Your task to perform on an android device: Open the calendar and show me this week's events Image 0: 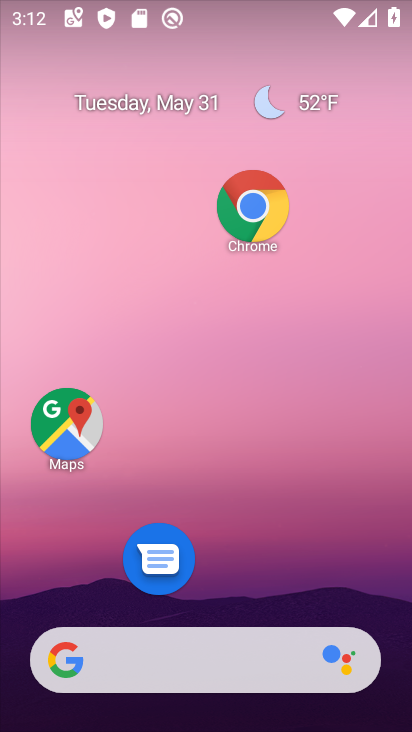
Step 0: drag from (237, 555) to (213, 100)
Your task to perform on an android device: Open the calendar and show me this week's events Image 1: 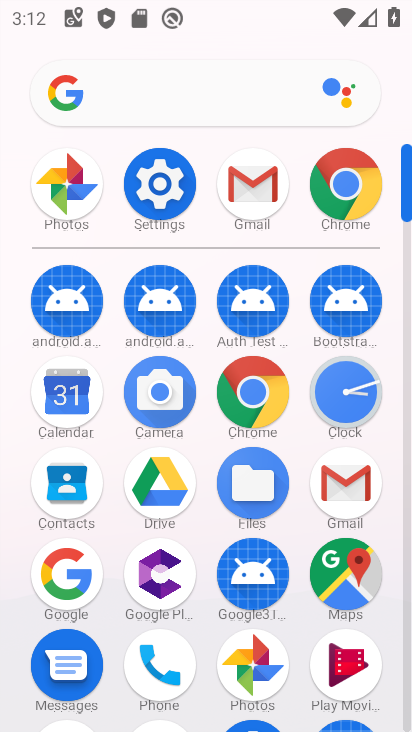
Step 1: click (72, 372)
Your task to perform on an android device: Open the calendar and show me this week's events Image 2: 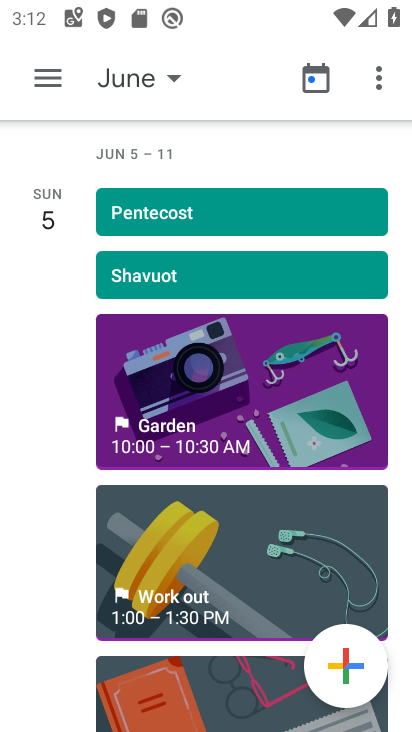
Step 2: click (179, 76)
Your task to perform on an android device: Open the calendar and show me this week's events Image 3: 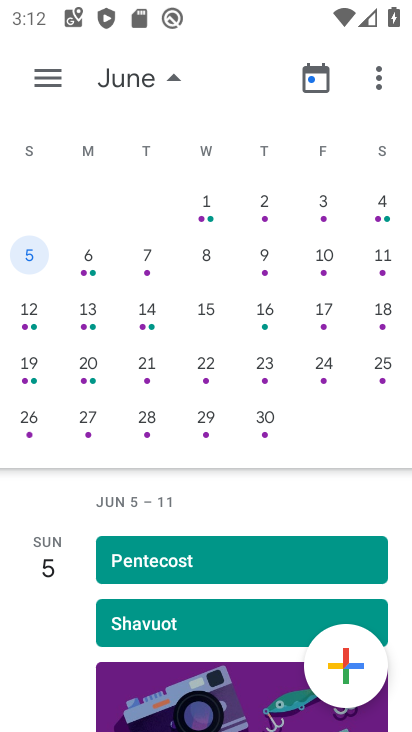
Step 3: drag from (24, 300) to (56, 317)
Your task to perform on an android device: Open the calendar and show me this week's events Image 4: 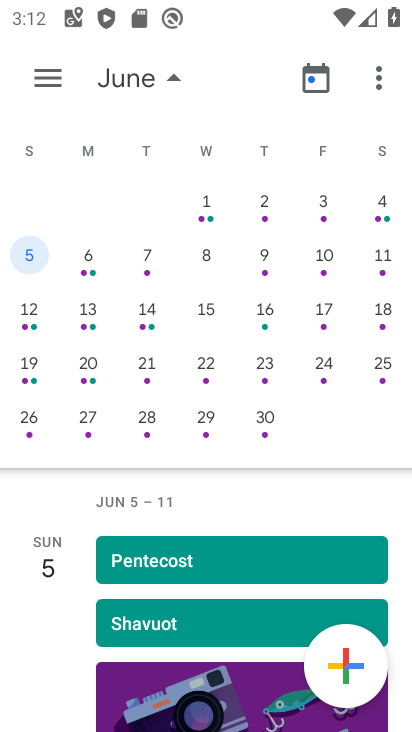
Step 4: click (335, 202)
Your task to perform on an android device: Open the calendar and show me this week's events Image 5: 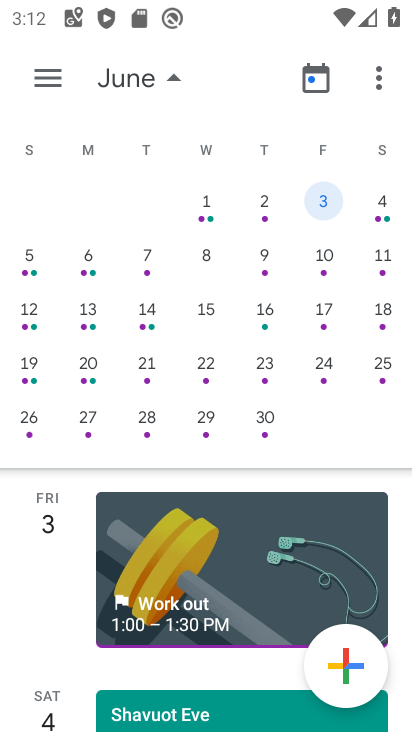
Step 5: click (367, 197)
Your task to perform on an android device: Open the calendar and show me this week's events Image 6: 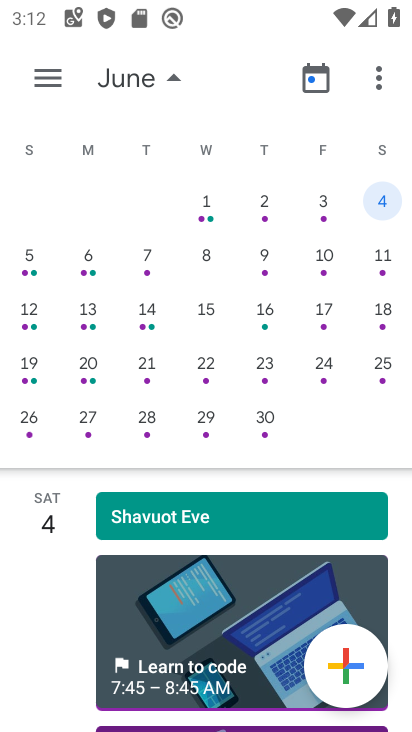
Step 6: task complete